Your task to perform on an android device: snooze an email in the gmail app Image 0: 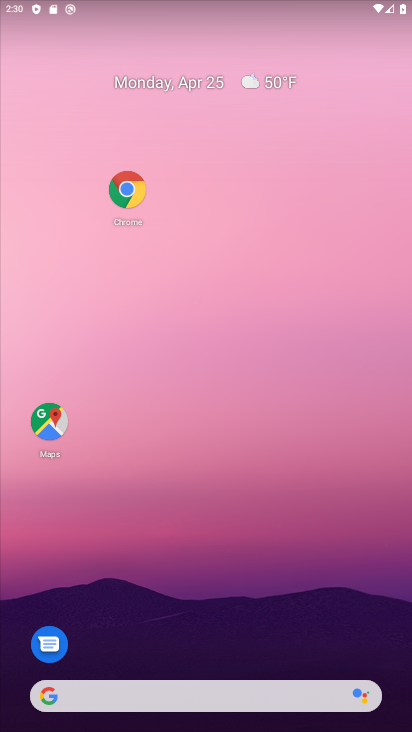
Step 0: drag from (221, 657) to (249, 121)
Your task to perform on an android device: snooze an email in the gmail app Image 1: 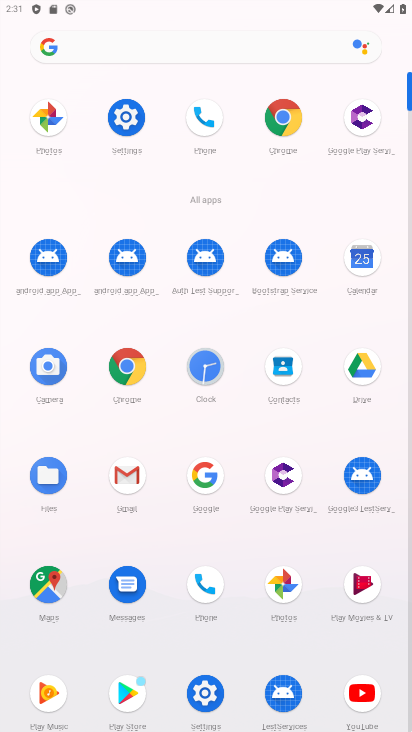
Step 1: click (110, 473)
Your task to perform on an android device: snooze an email in the gmail app Image 2: 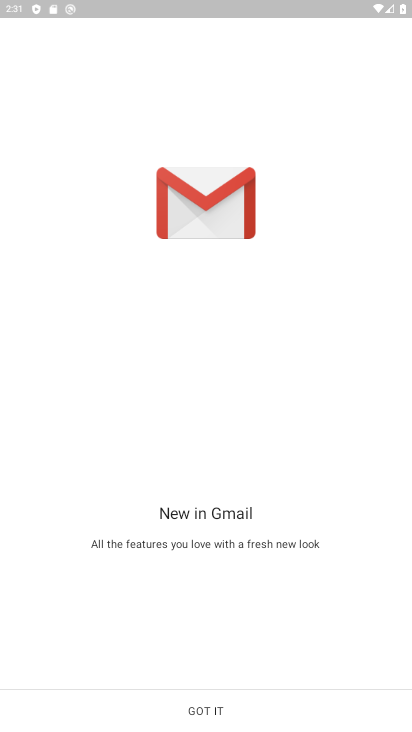
Step 2: click (205, 711)
Your task to perform on an android device: snooze an email in the gmail app Image 3: 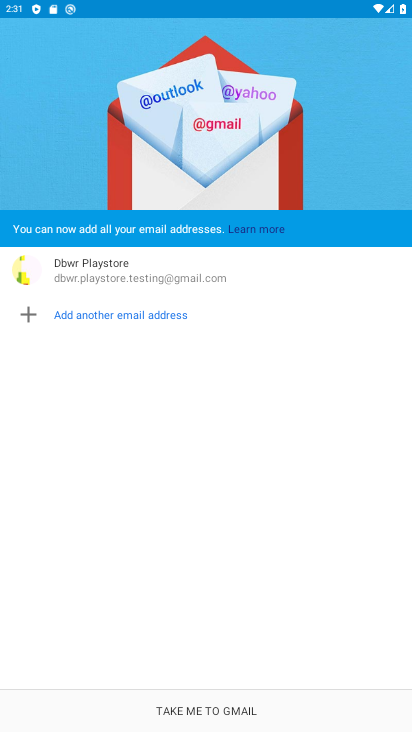
Step 3: click (203, 274)
Your task to perform on an android device: snooze an email in the gmail app Image 4: 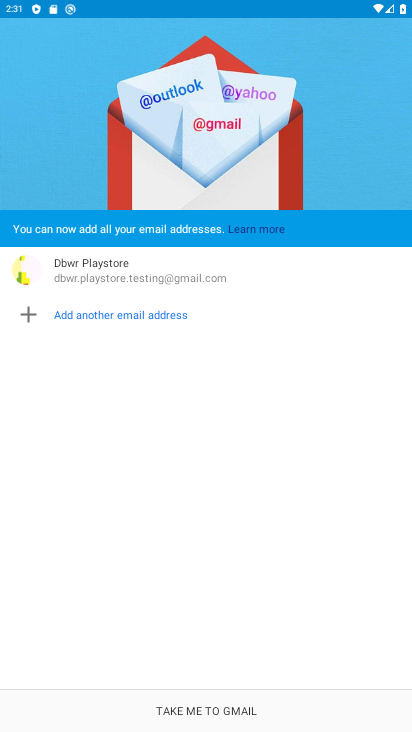
Step 4: click (207, 278)
Your task to perform on an android device: snooze an email in the gmail app Image 5: 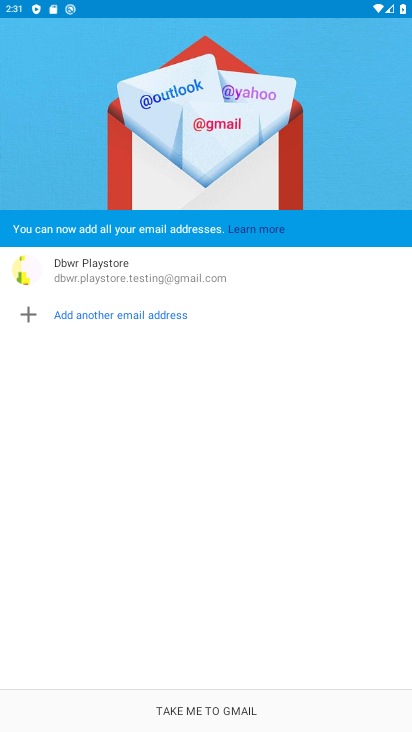
Step 5: click (111, 272)
Your task to perform on an android device: snooze an email in the gmail app Image 6: 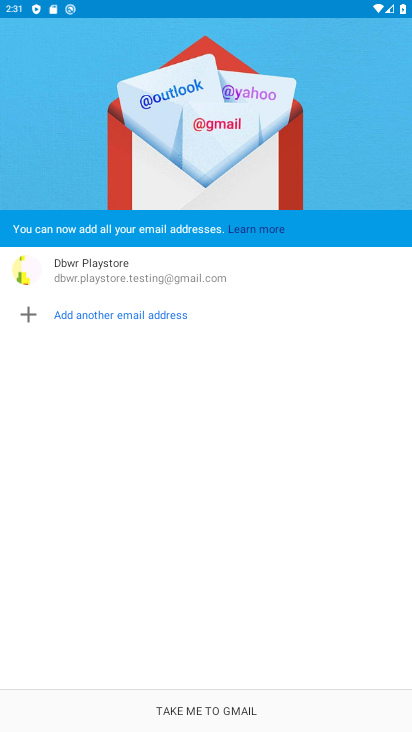
Step 6: click (112, 265)
Your task to perform on an android device: snooze an email in the gmail app Image 7: 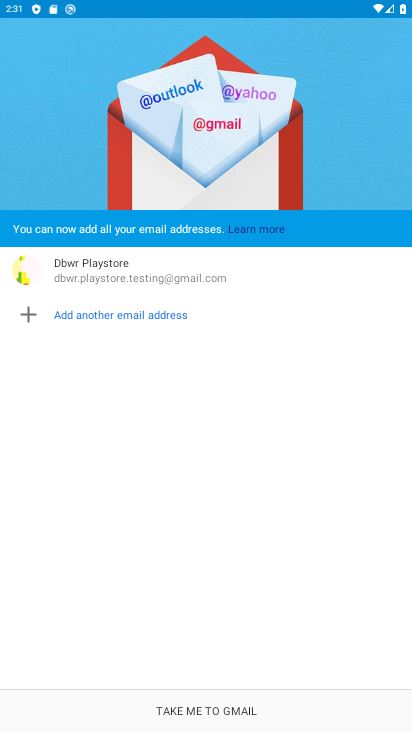
Step 7: click (188, 712)
Your task to perform on an android device: snooze an email in the gmail app Image 8: 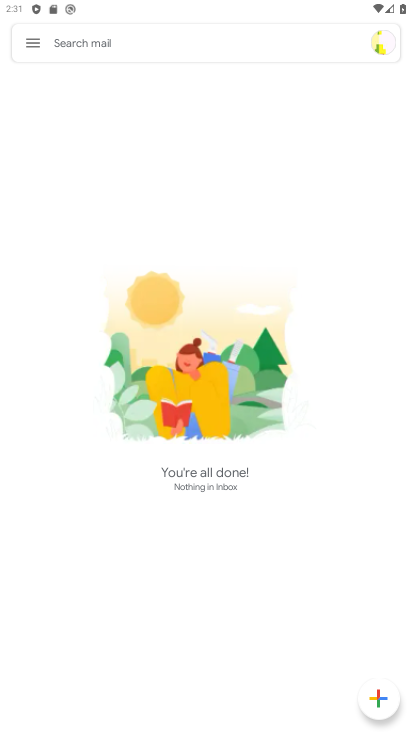
Step 8: click (38, 47)
Your task to perform on an android device: snooze an email in the gmail app Image 9: 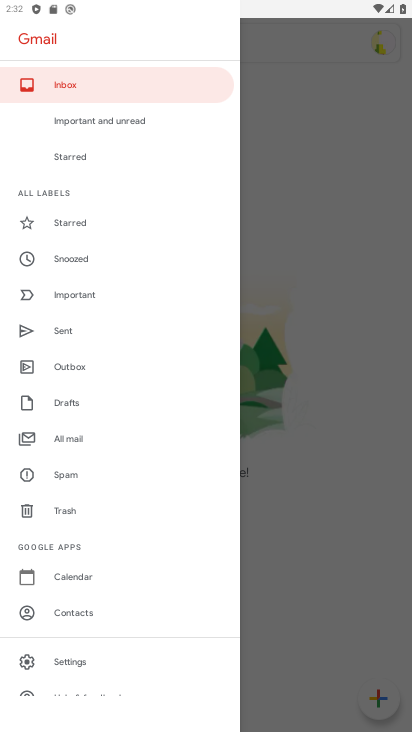
Step 9: task complete